Your task to perform on an android device: Open wifi settings Image 0: 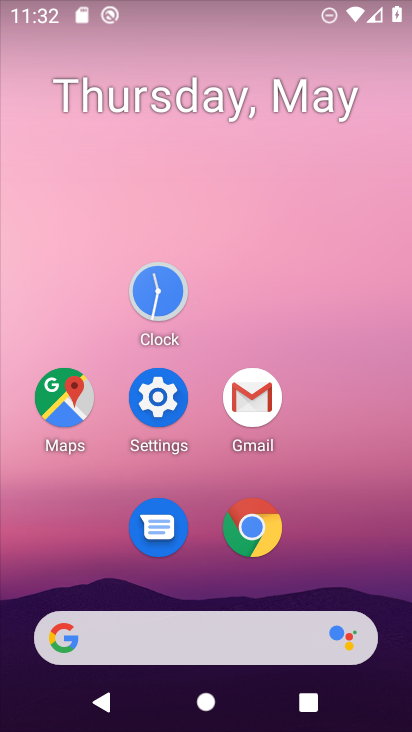
Step 0: click (154, 410)
Your task to perform on an android device: Open wifi settings Image 1: 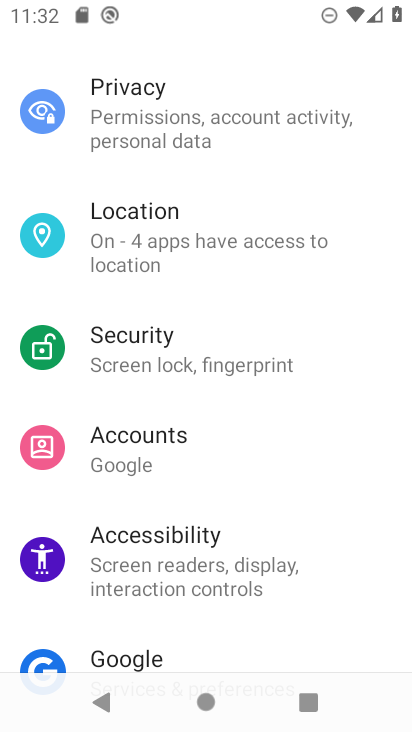
Step 1: drag from (179, 278) to (193, 528)
Your task to perform on an android device: Open wifi settings Image 2: 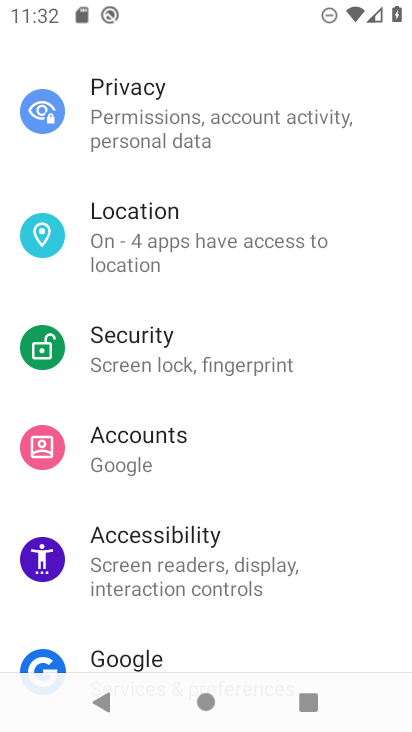
Step 2: drag from (208, 186) to (212, 555)
Your task to perform on an android device: Open wifi settings Image 3: 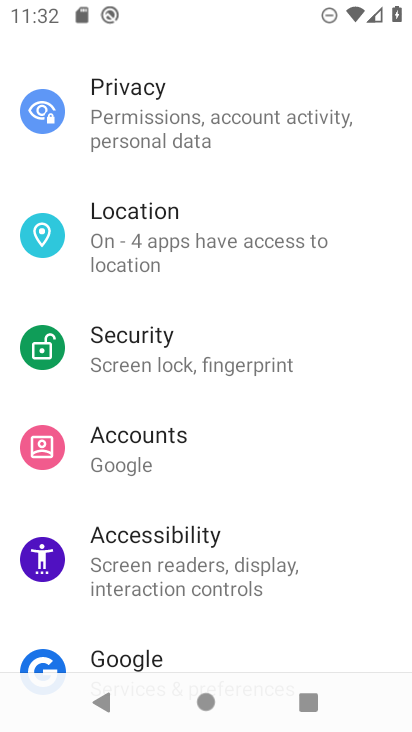
Step 3: drag from (207, 184) to (219, 631)
Your task to perform on an android device: Open wifi settings Image 4: 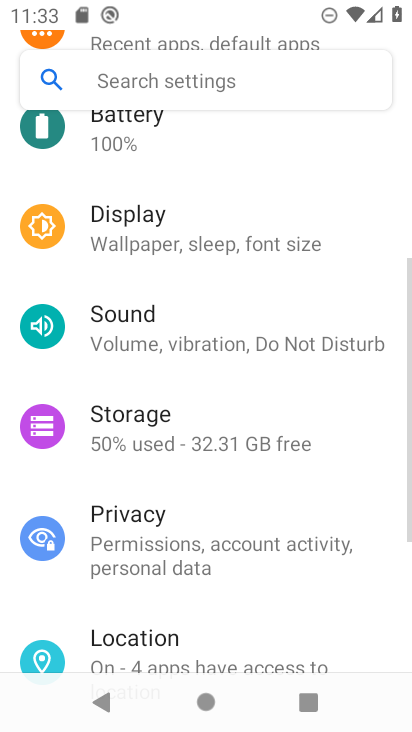
Step 4: drag from (236, 446) to (299, 245)
Your task to perform on an android device: Open wifi settings Image 5: 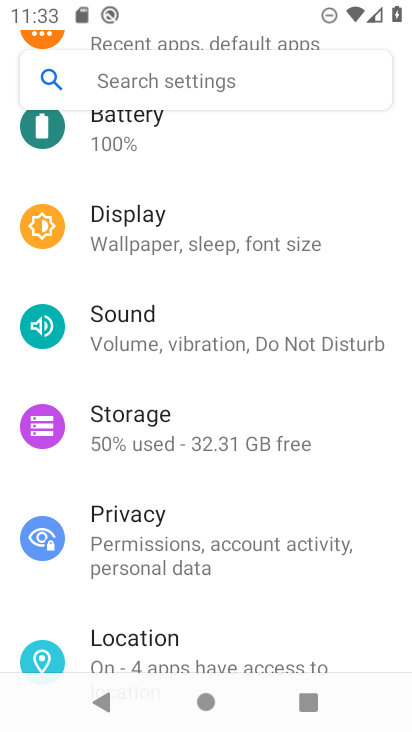
Step 5: press home button
Your task to perform on an android device: Open wifi settings Image 6: 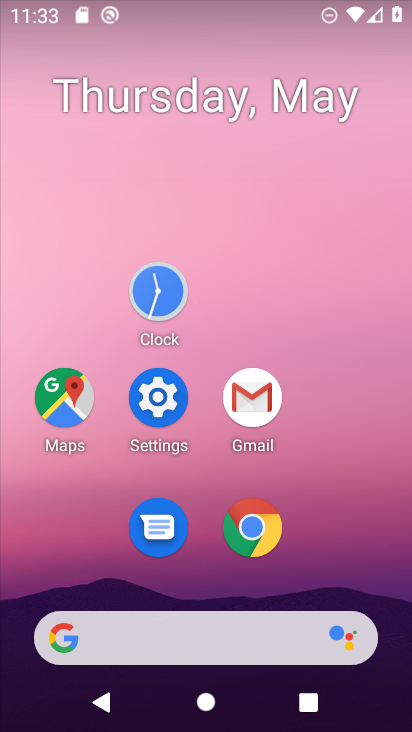
Step 6: click (136, 415)
Your task to perform on an android device: Open wifi settings Image 7: 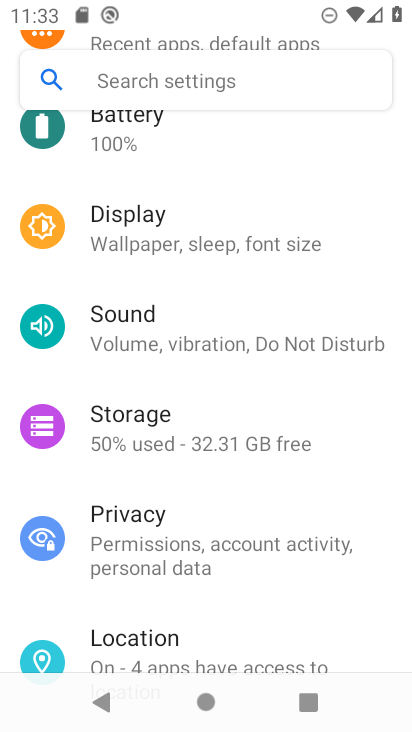
Step 7: drag from (319, 224) to (408, 530)
Your task to perform on an android device: Open wifi settings Image 8: 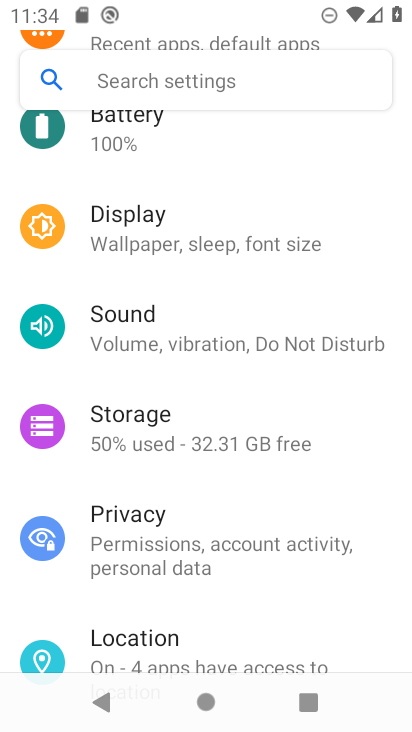
Step 8: drag from (198, 291) to (199, 592)
Your task to perform on an android device: Open wifi settings Image 9: 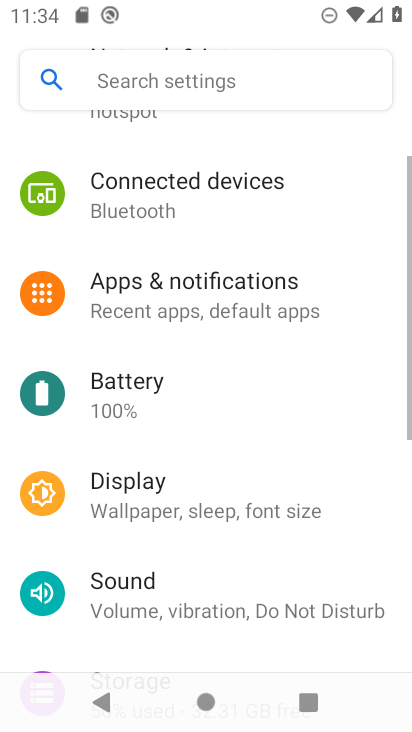
Step 9: drag from (263, 390) to (262, 486)
Your task to perform on an android device: Open wifi settings Image 10: 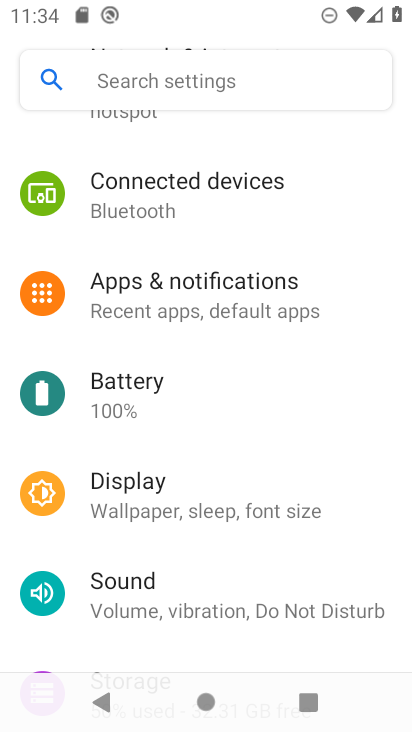
Step 10: drag from (257, 251) to (248, 576)
Your task to perform on an android device: Open wifi settings Image 11: 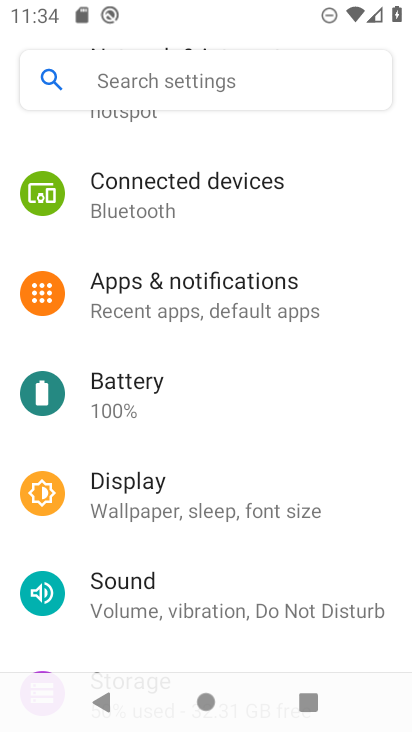
Step 11: drag from (246, 223) to (136, 691)
Your task to perform on an android device: Open wifi settings Image 12: 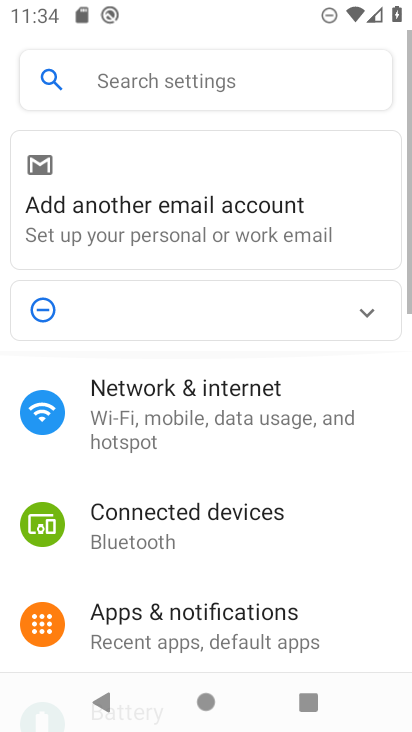
Step 12: drag from (221, 408) to (222, 652)
Your task to perform on an android device: Open wifi settings Image 13: 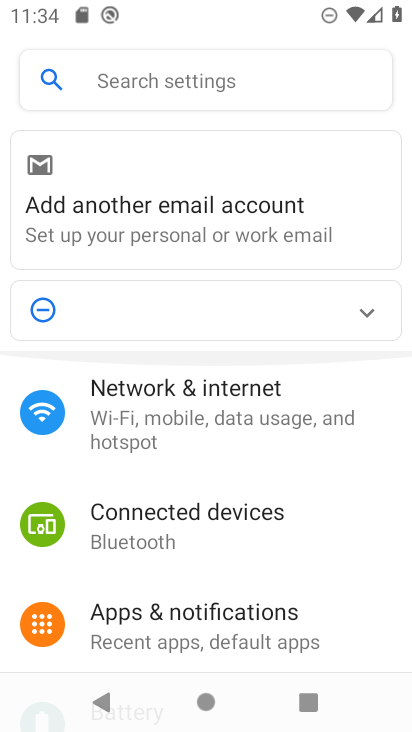
Step 13: click (269, 418)
Your task to perform on an android device: Open wifi settings Image 14: 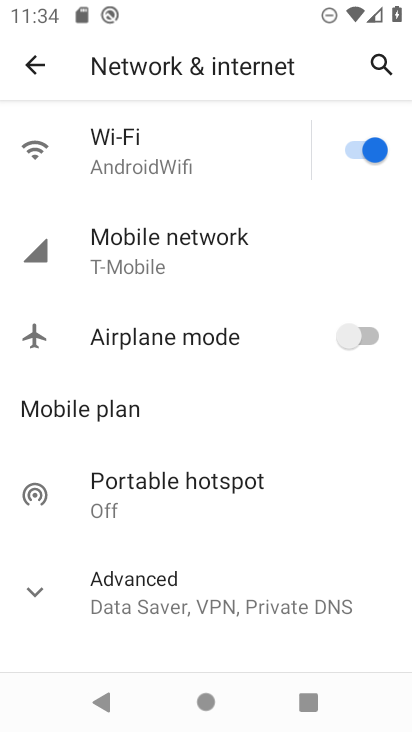
Step 14: click (221, 160)
Your task to perform on an android device: Open wifi settings Image 15: 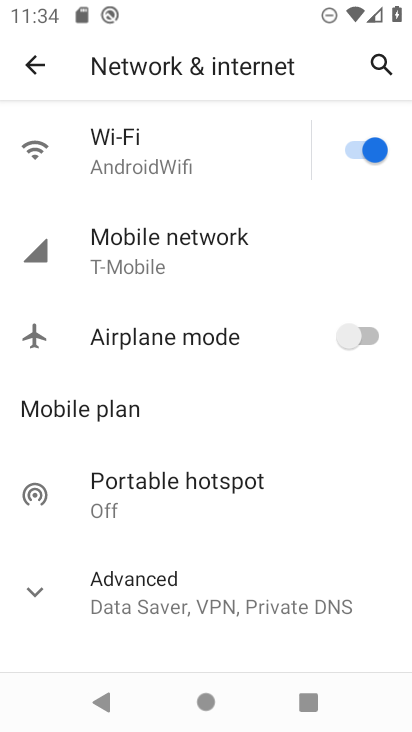
Step 15: task complete